Your task to perform on an android device: Go to calendar. Show me events next week Image 0: 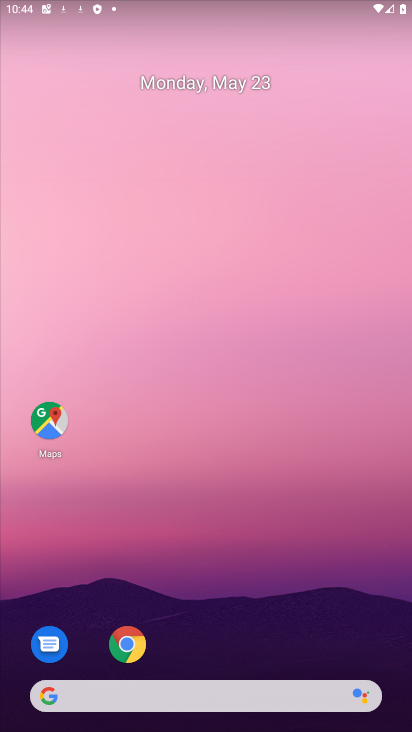
Step 0: drag from (290, 713) to (165, 90)
Your task to perform on an android device: Go to calendar. Show me events next week Image 1: 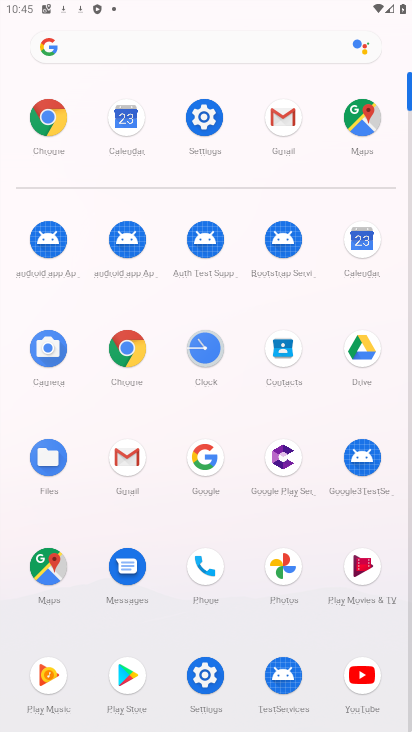
Step 1: click (361, 250)
Your task to perform on an android device: Go to calendar. Show me events next week Image 2: 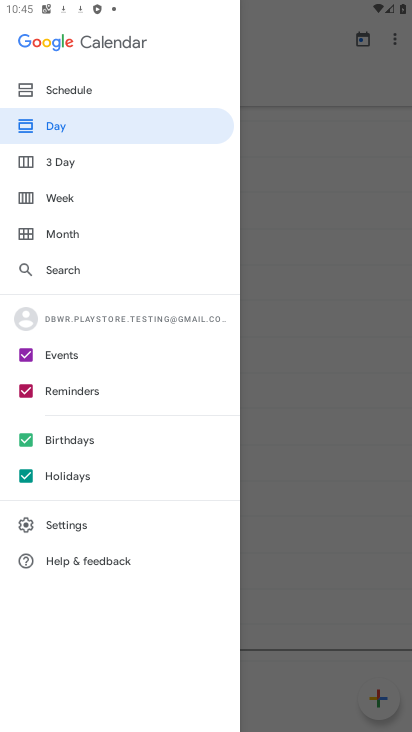
Step 2: click (79, 236)
Your task to perform on an android device: Go to calendar. Show me events next week Image 3: 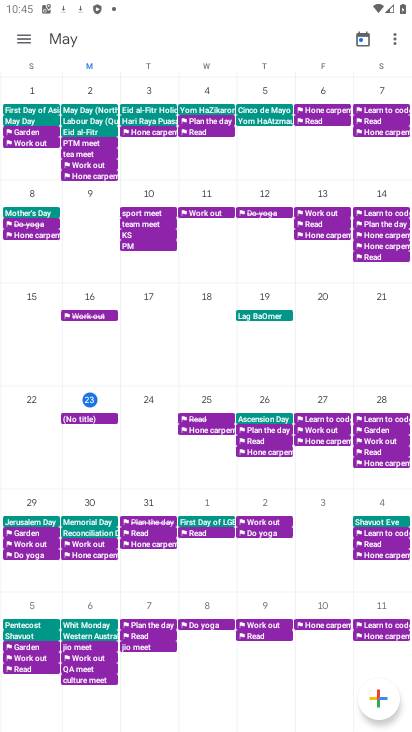
Step 3: click (18, 35)
Your task to perform on an android device: Go to calendar. Show me events next week Image 4: 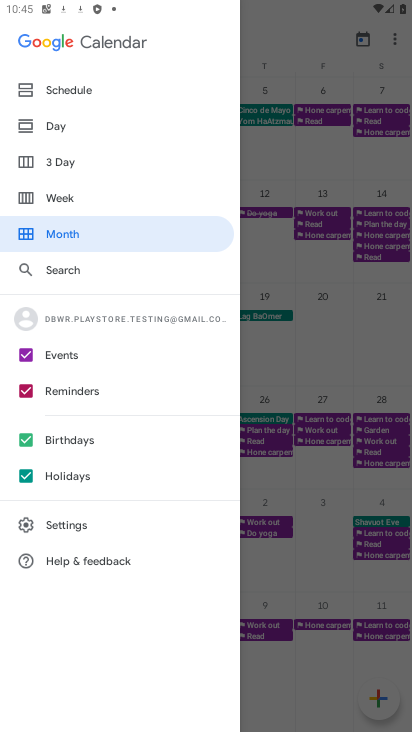
Step 4: click (272, 312)
Your task to perform on an android device: Go to calendar. Show me events next week Image 5: 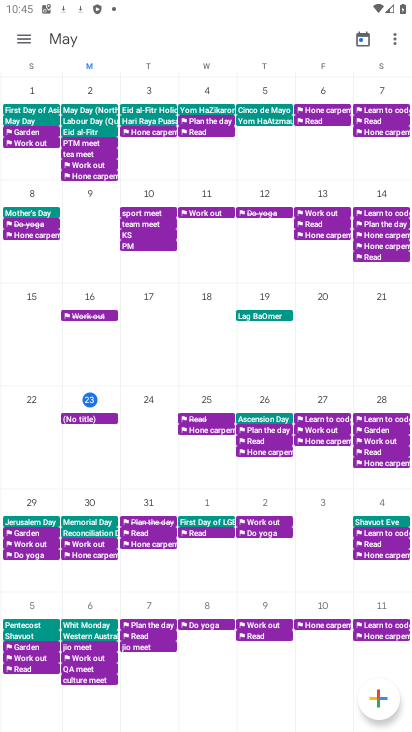
Step 5: click (88, 509)
Your task to perform on an android device: Go to calendar. Show me events next week Image 6: 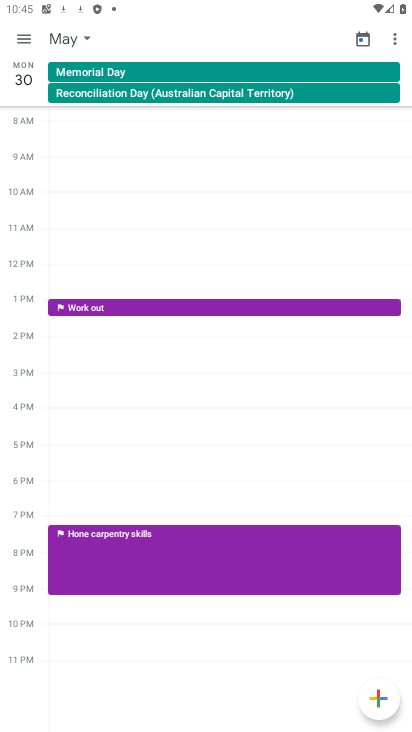
Step 6: task complete